Your task to perform on an android device: open app "TextNow: Call + Text Unlimited" Image 0: 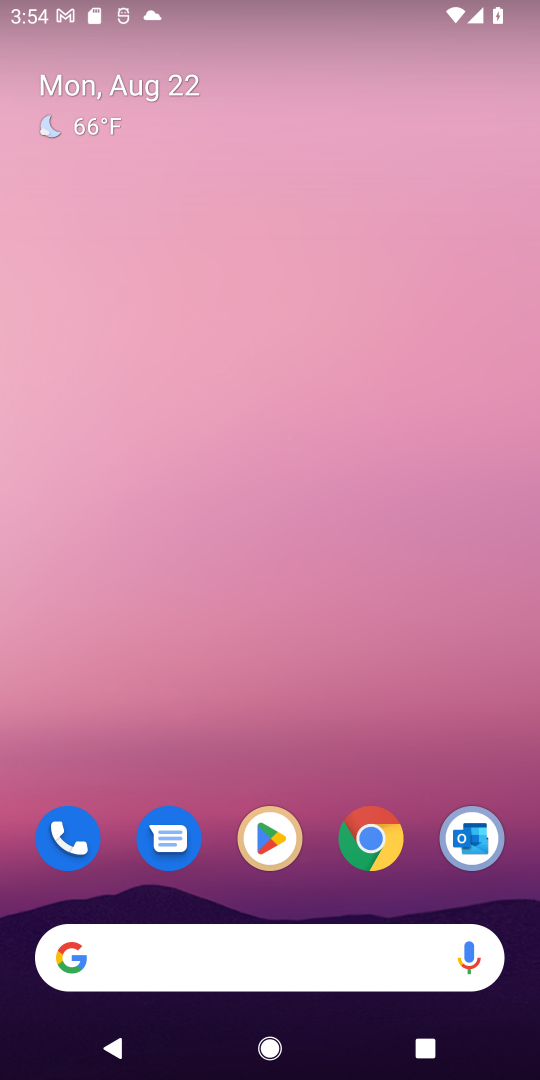
Step 0: click (274, 820)
Your task to perform on an android device: open app "TextNow: Call + Text Unlimited" Image 1: 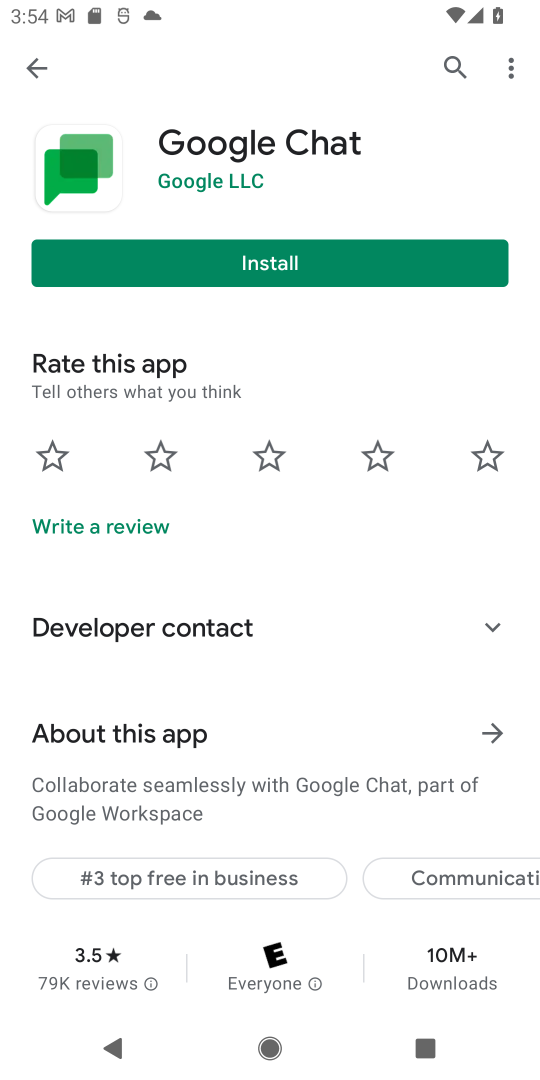
Step 1: click (450, 65)
Your task to perform on an android device: open app "TextNow: Call + Text Unlimited" Image 2: 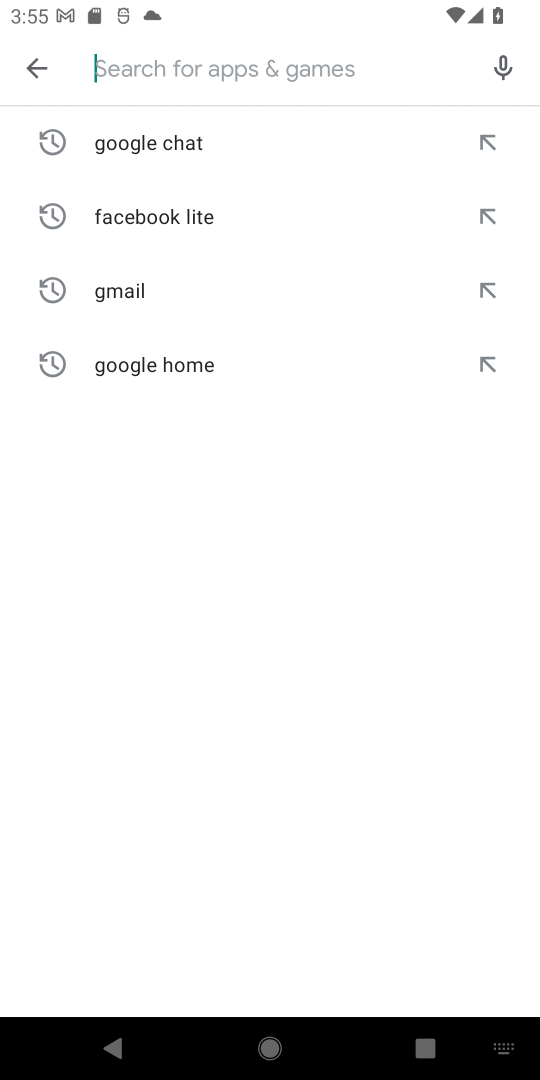
Step 2: click (196, 74)
Your task to perform on an android device: open app "TextNow: Call + Text Unlimited" Image 3: 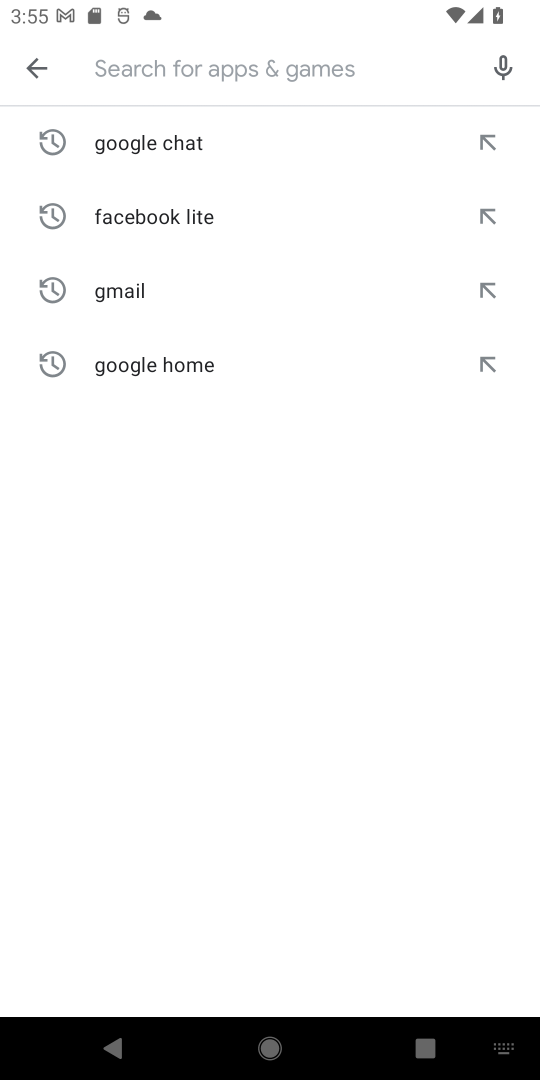
Step 3: type "TextNow"
Your task to perform on an android device: open app "TextNow: Call + Text Unlimited" Image 4: 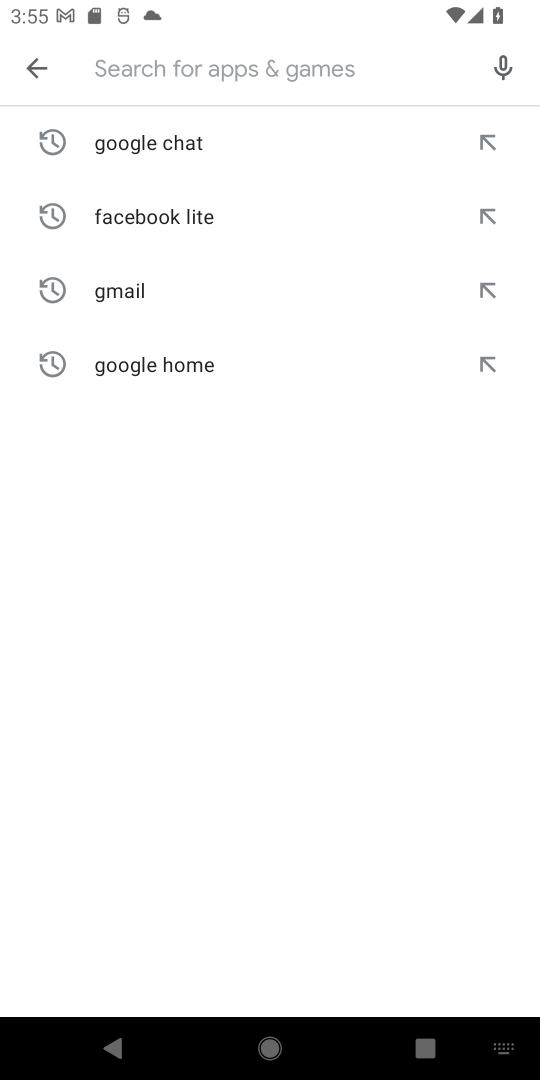
Step 4: click (250, 526)
Your task to perform on an android device: open app "TextNow: Call + Text Unlimited" Image 5: 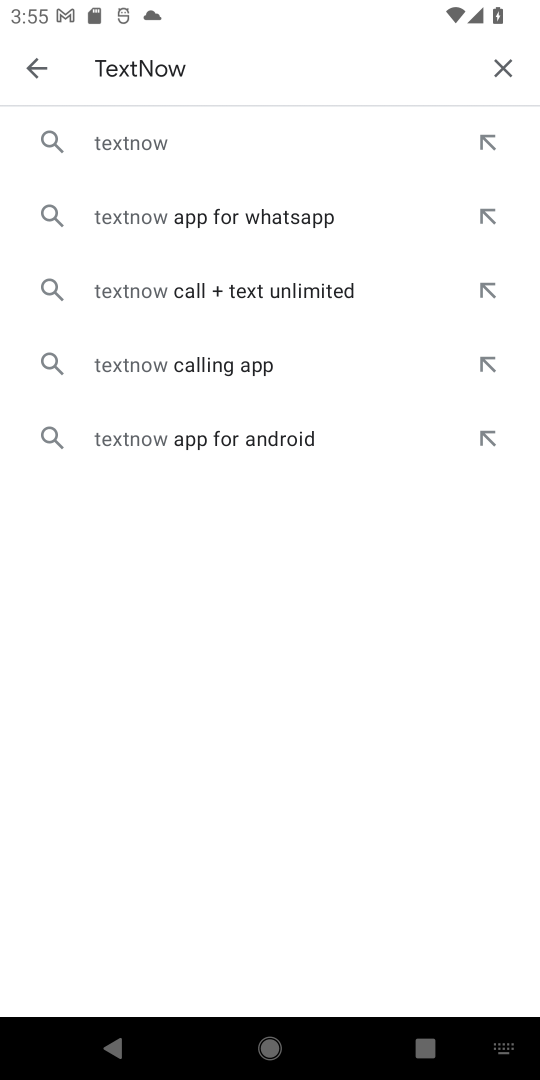
Step 5: click (173, 148)
Your task to perform on an android device: open app "TextNow: Call + Text Unlimited" Image 6: 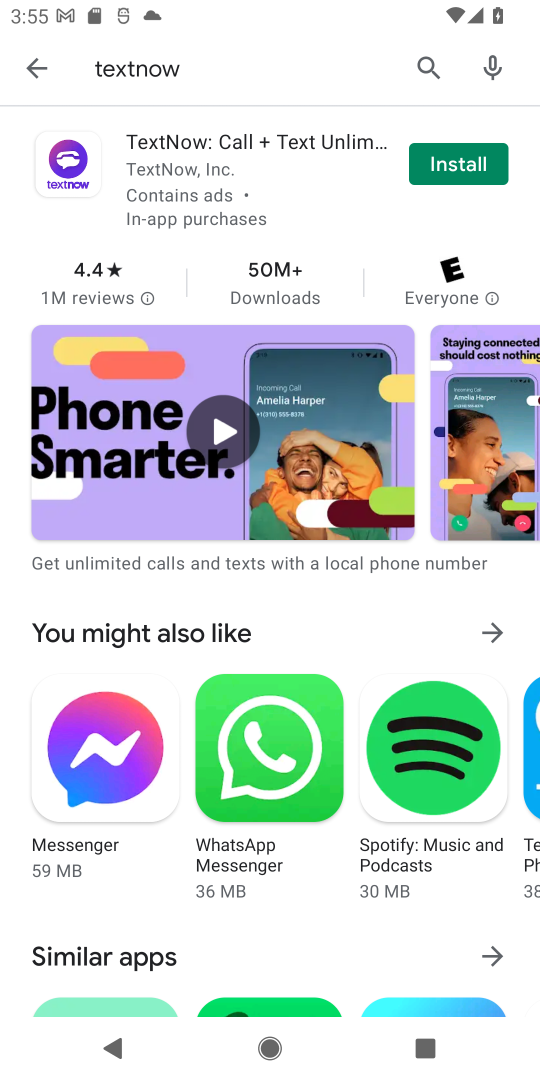
Step 6: task complete